Your task to perform on an android device: Open Android settings Image 0: 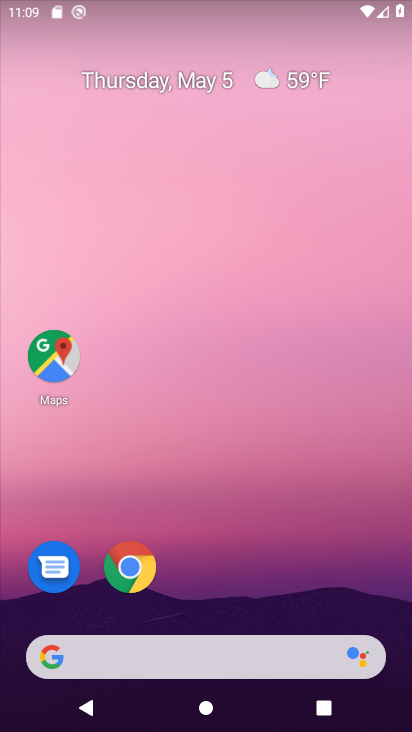
Step 0: drag from (308, 582) to (326, 0)
Your task to perform on an android device: Open Android settings Image 1: 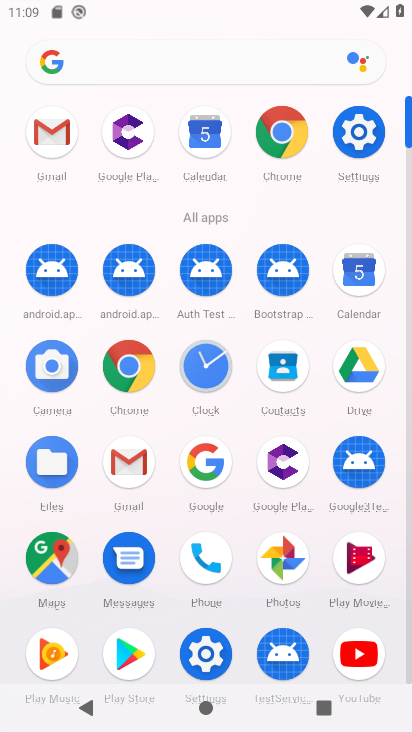
Step 1: click (368, 129)
Your task to perform on an android device: Open Android settings Image 2: 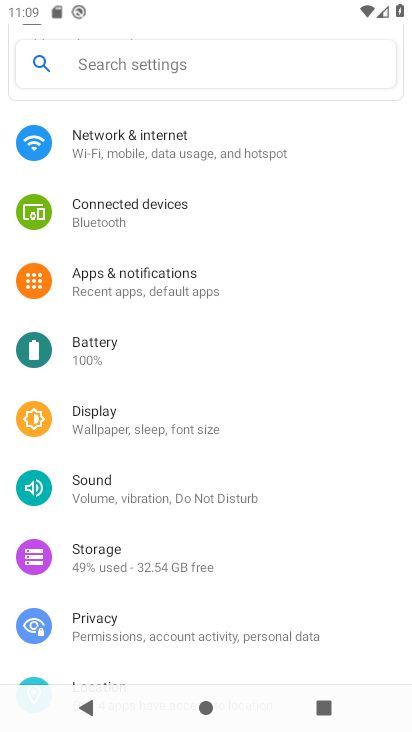
Step 2: task complete